Your task to perform on an android device: toggle priority inbox in the gmail app Image 0: 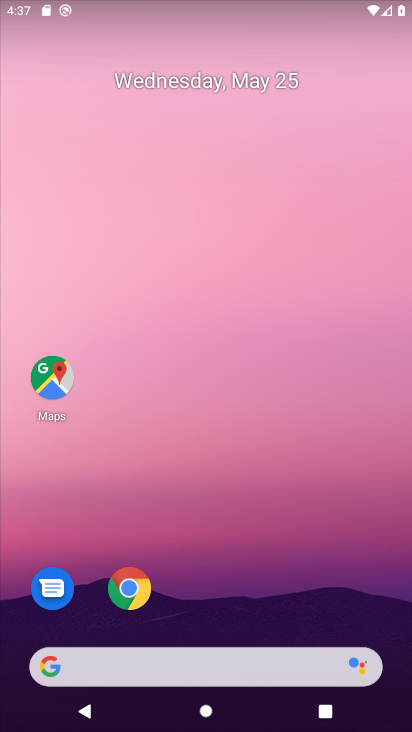
Step 0: drag from (191, 642) to (293, 147)
Your task to perform on an android device: toggle priority inbox in the gmail app Image 1: 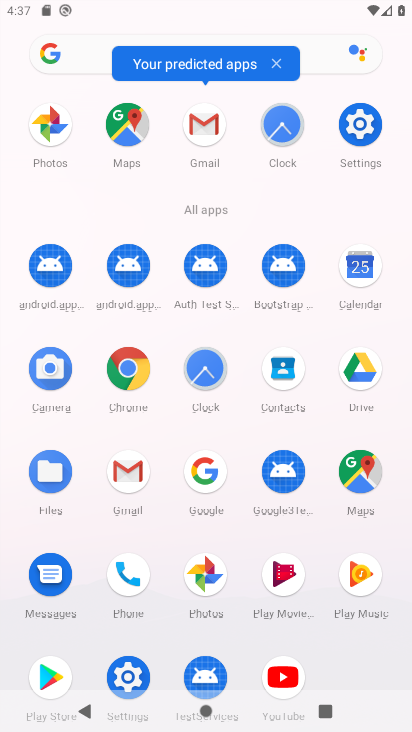
Step 1: click (131, 490)
Your task to perform on an android device: toggle priority inbox in the gmail app Image 2: 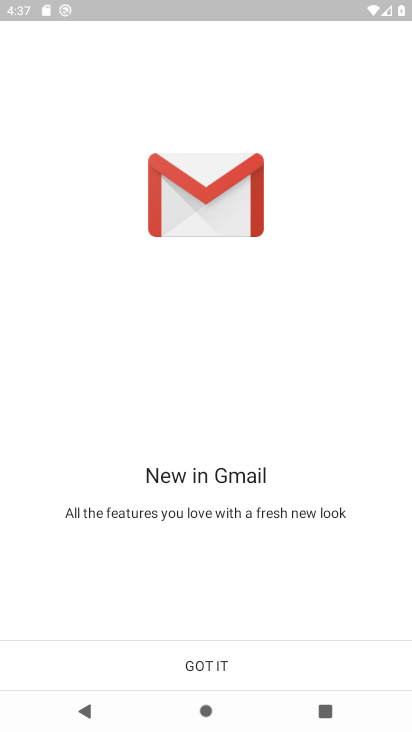
Step 2: click (192, 676)
Your task to perform on an android device: toggle priority inbox in the gmail app Image 3: 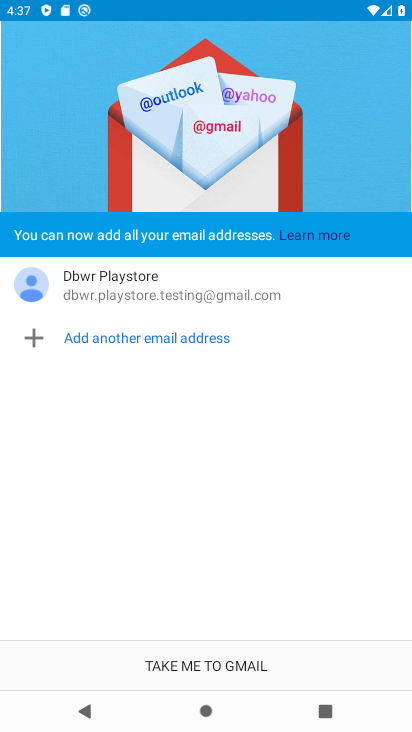
Step 3: click (192, 676)
Your task to perform on an android device: toggle priority inbox in the gmail app Image 4: 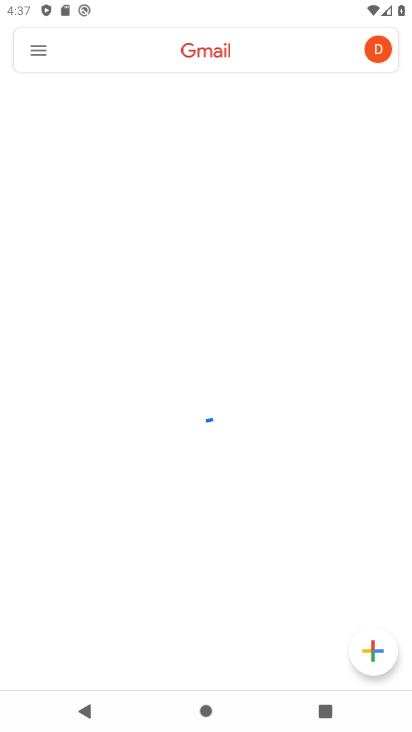
Step 4: click (39, 57)
Your task to perform on an android device: toggle priority inbox in the gmail app Image 5: 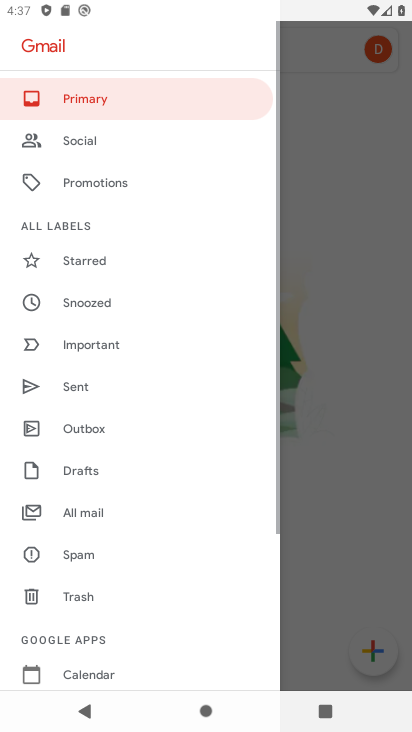
Step 5: drag from (96, 648) to (172, 348)
Your task to perform on an android device: toggle priority inbox in the gmail app Image 6: 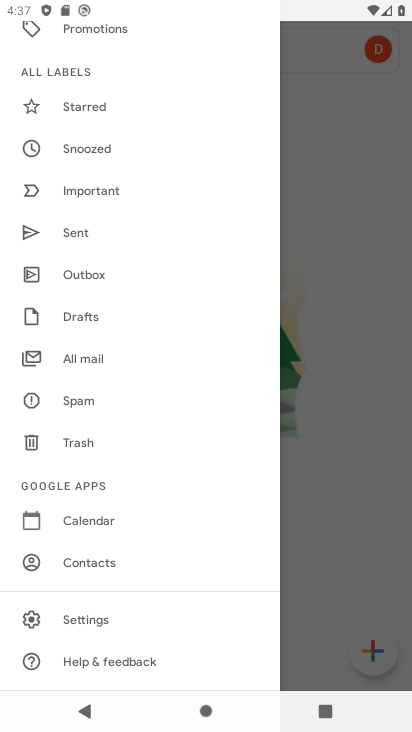
Step 6: click (115, 623)
Your task to perform on an android device: toggle priority inbox in the gmail app Image 7: 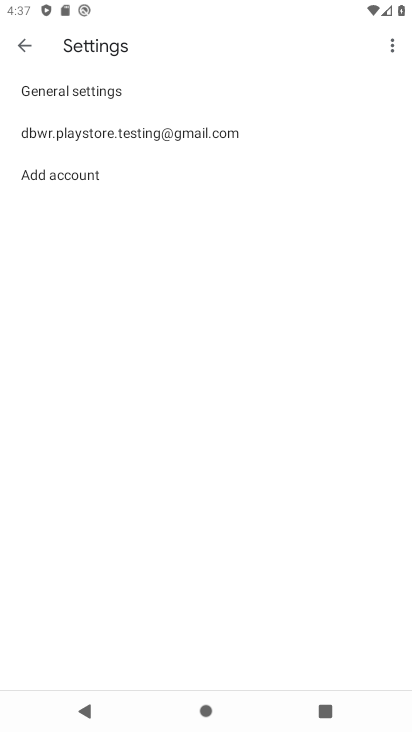
Step 7: click (210, 137)
Your task to perform on an android device: toggle priority inbox in the gmail app Image 8: 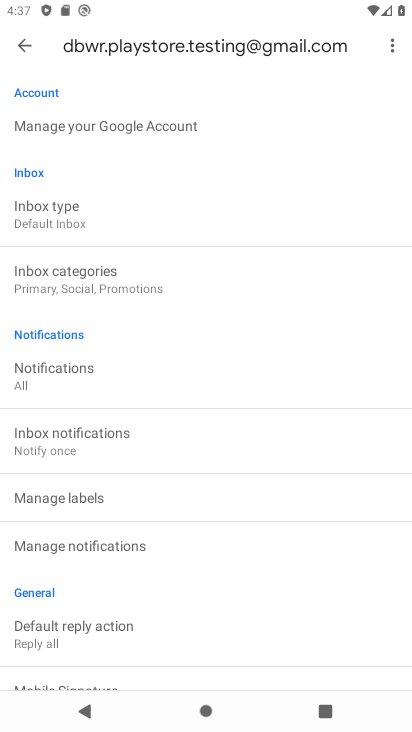
Step 8: click (138, 218)
Your task to perform on an android device: toggle priority inbox in the gmail app Image 9: 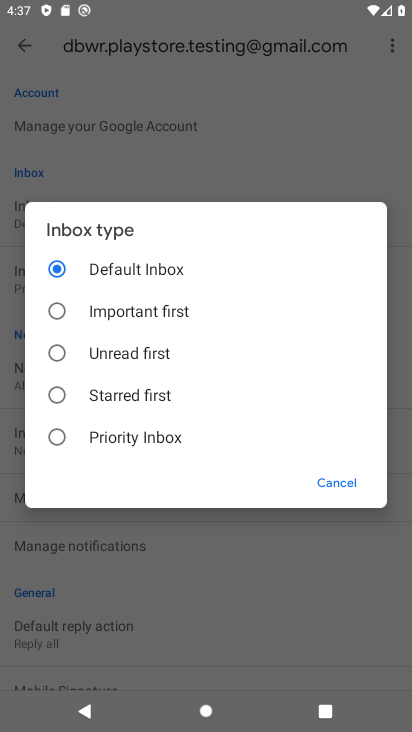
Step 9: click (133, 447)
Your task to perform on an android device: toggle priority inbox in the gmail app Image 10: 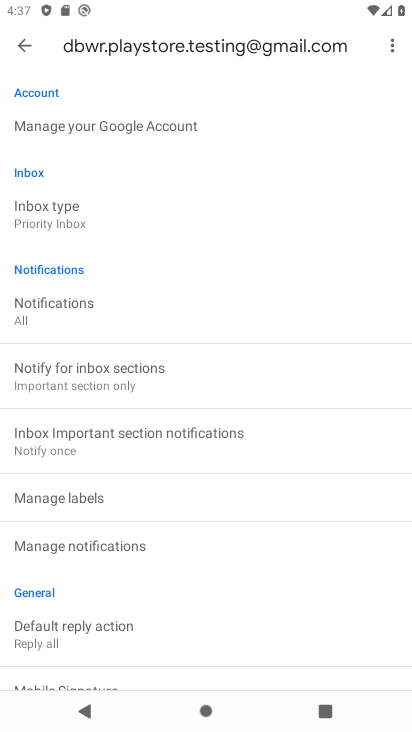
Step 10: task complete